Your task to perform on an android device: toggle notification dots Image 0: 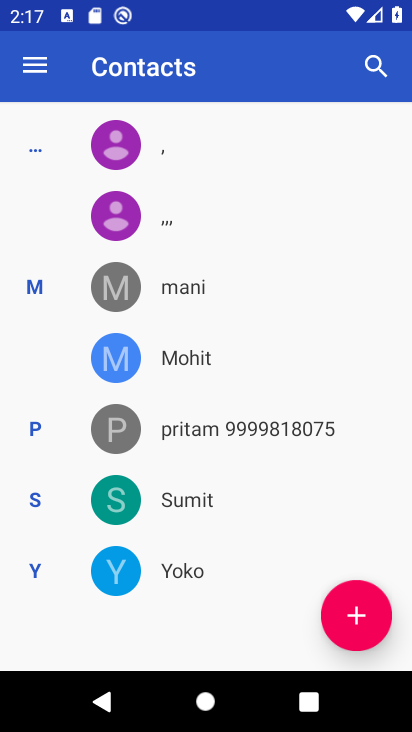
Step 0: press home button
Your task to perform on an android device: toggle notification dots Image 1: 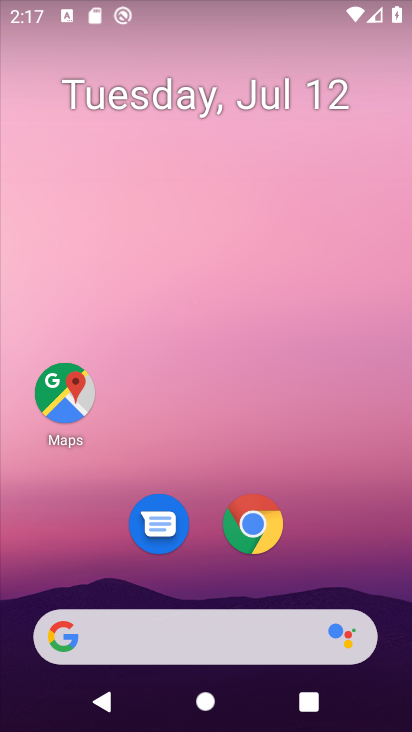
Step 1: drag from (236, 459) to (302, 0)
Your task to perform on an android device: toggle notification dots Image 2: 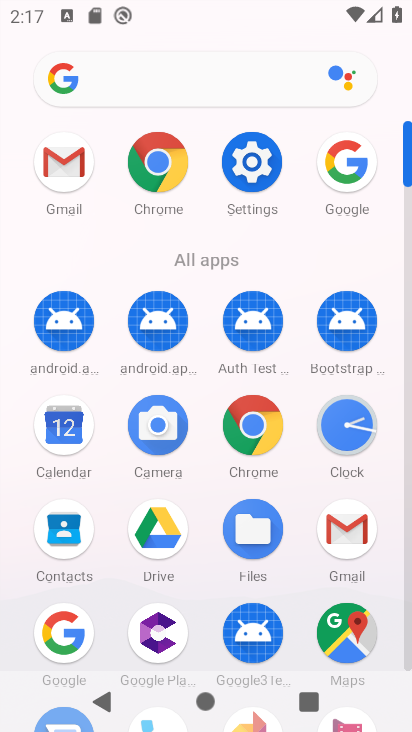
Step 2: click (256, 160)
Your task to perform on an android device: toggle notification dots Image 3: 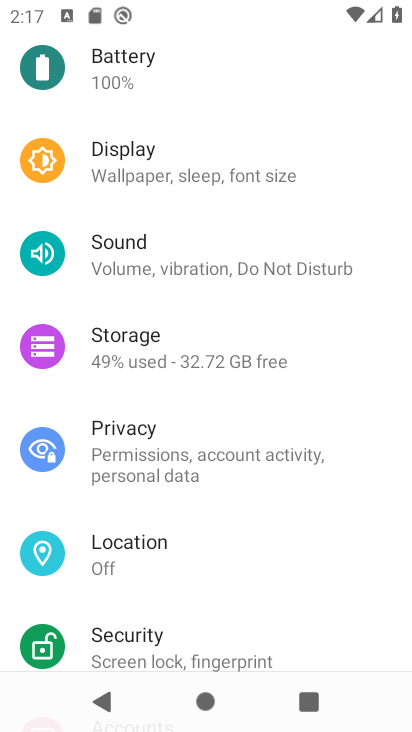
Step 3: drag from (226, 218) to (226, 551)
Your task to perform on an android device: toggle notification dots Image 4: 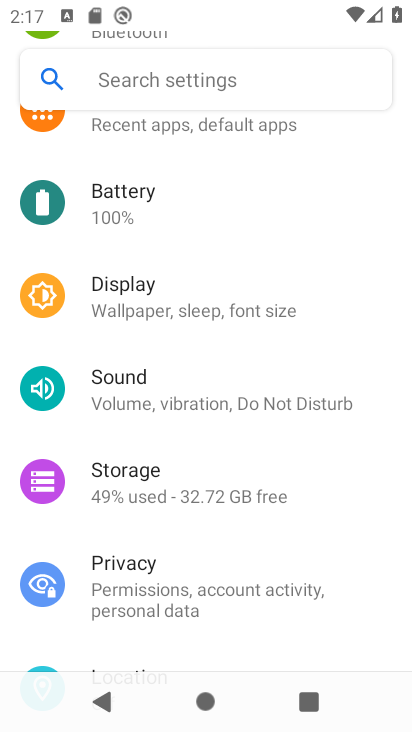
Step 4: drag from (222, 235) to (244, 546)
Your task to perform on an android device: toggle notification dots Image 5: 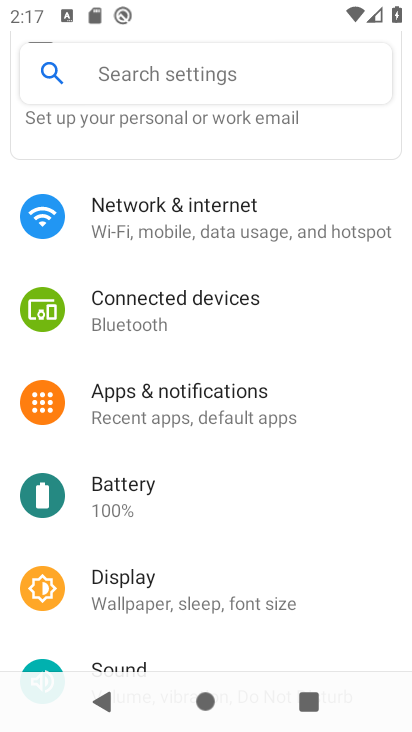
Step 5: click (216, 395)
Your task to perform on an android device: toggle notification dots Image 6: 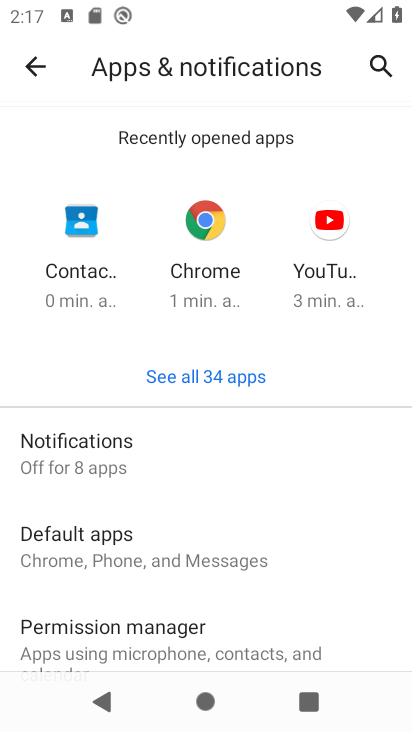
Step 6: click (118, 467)
Your task to perform on an android device: toggle notification dots Image 7: 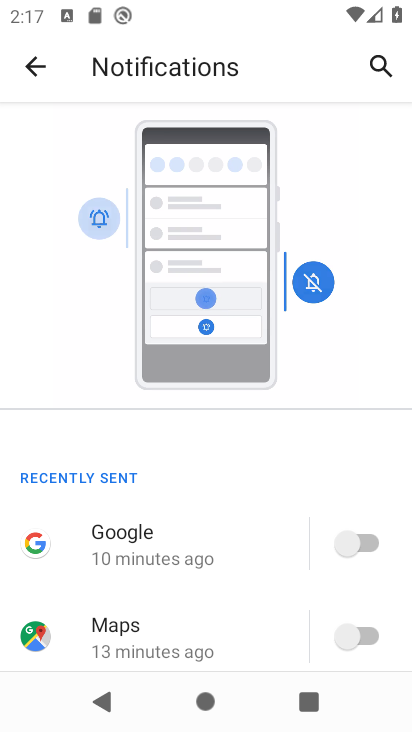
Step 7: drag from (236, 608) to (236, 262)
Your task to perform on an android device: toggle notification dots Image 8: 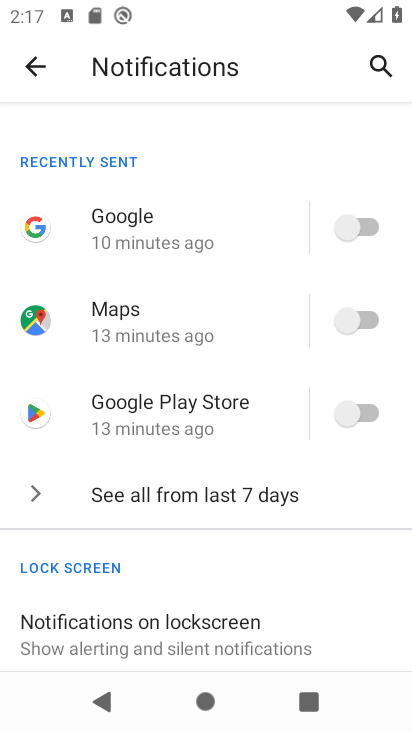
Step 8: drag from (186, 566) to (197, 268)
Your task to perform on an android device: toggle notification dots Image 9: 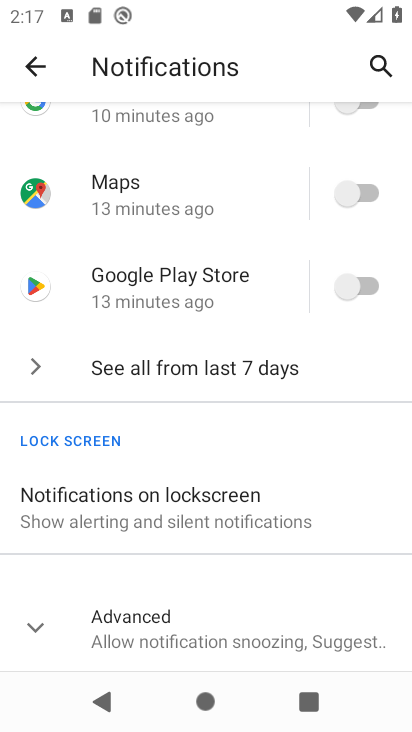
Step 9: click (35, 626)
Your task to perform on an android device: toggle notification dots Image 10: 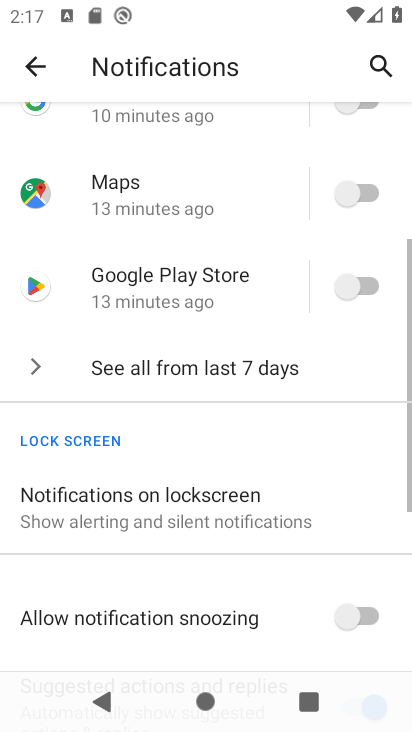
Step 10: drag from (248, 476) to (244, 134)
Your task to perform on an android device: toggle notification dots Image 11: 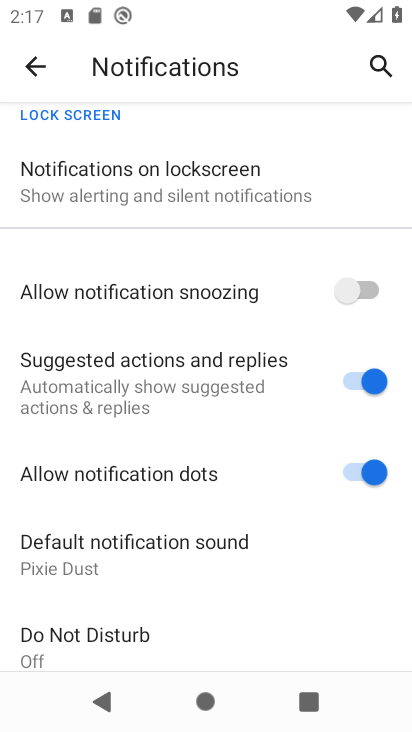
Step 11: click (363, 470)
Your task to perform on an android device: toggle notification dots Image 12: 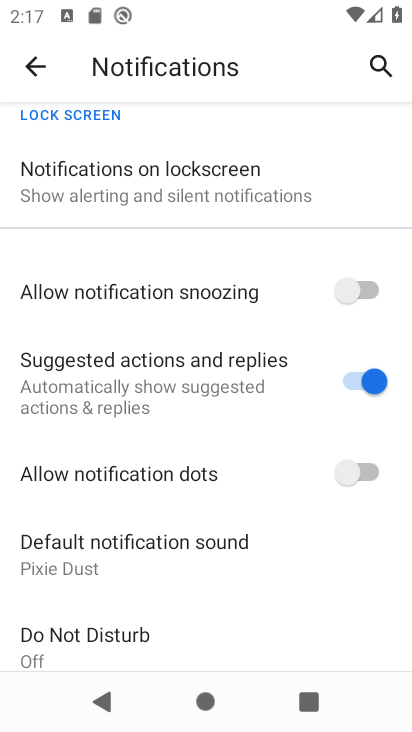
Step 12: task complete